Your task to perform on an android device: delete the emails in spam in the gmail app Image 0: 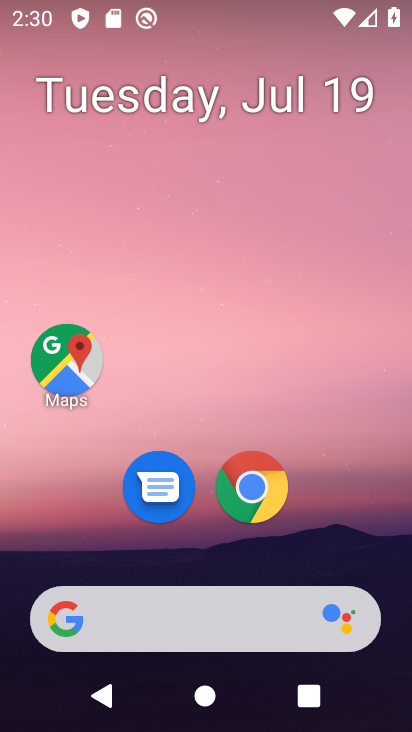
Step 0: drag from (223, 543) to (342, 28)
Your task to perform on an android device: delete the emails in spam in the gmail app Image 1: 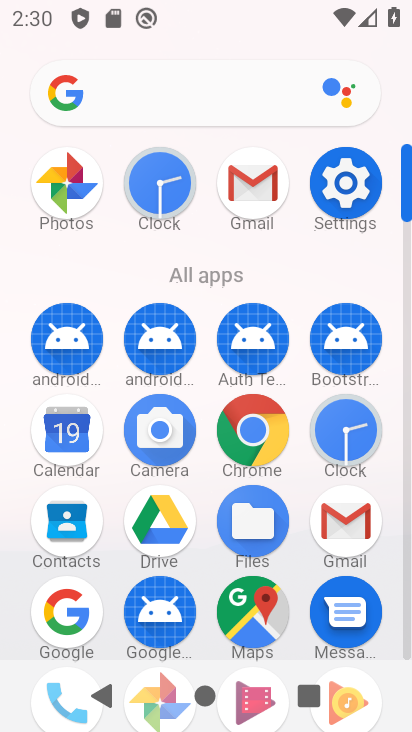
Step 1: click (251, 184)
Your task to perform on an android device: delete the emails in spam in the gmail app Image 2: 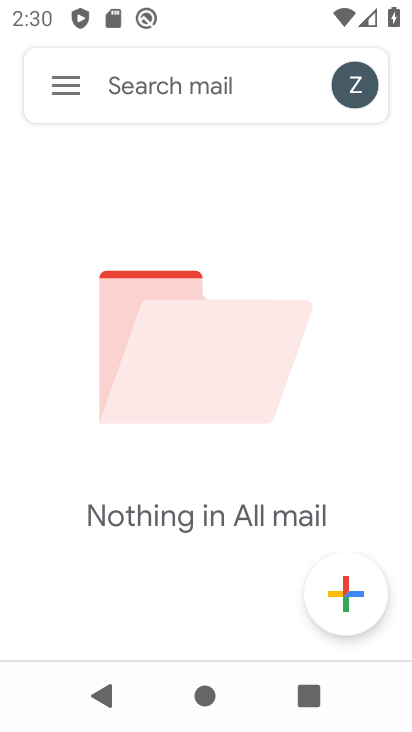
Step 2: click (41, 94)
Your task to perform on an android device: delete the emails in spam in the gmail app Image 3: 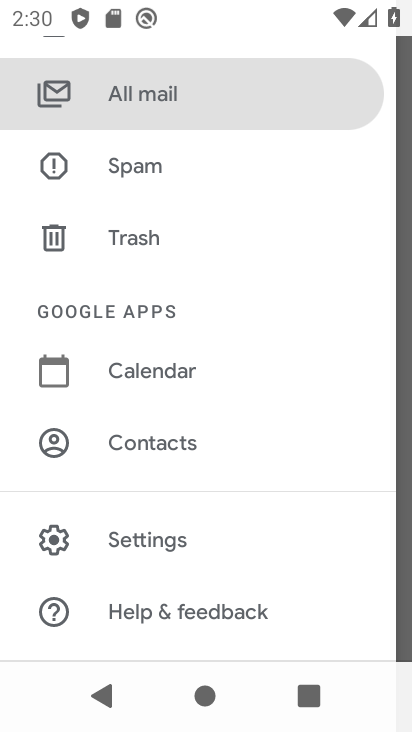
Step 3: click (190, 174)
Your task to perform on an android device: delete the emails in spam in the gmail app Image 4: 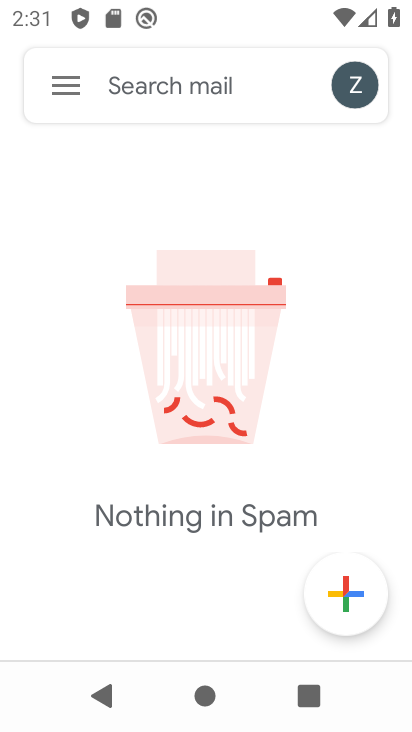
Step 4: task complete